Your task to perform on an android device: make emails show in primary in the gmail app Image 0: 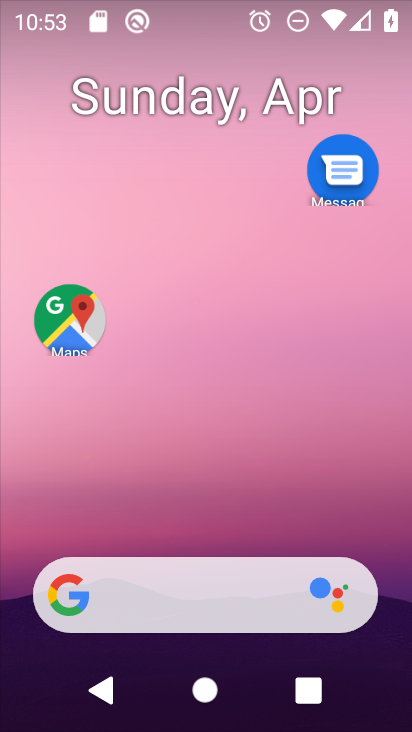
Step 0: drag from (173, 210) to (162, 66)
Your task to perform on an android device: make emails show in primary in the gmail app Image 1: 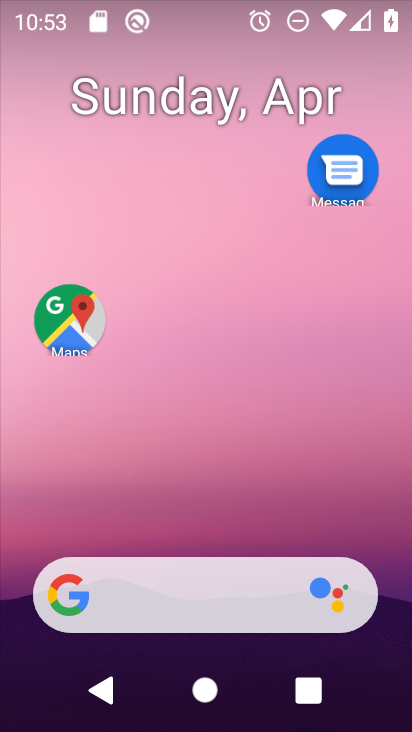
Step 1: drag from (194, 444) to (247, 126)
Your task to perform on an android device: make emails show in primary in the gmail app Image 2: 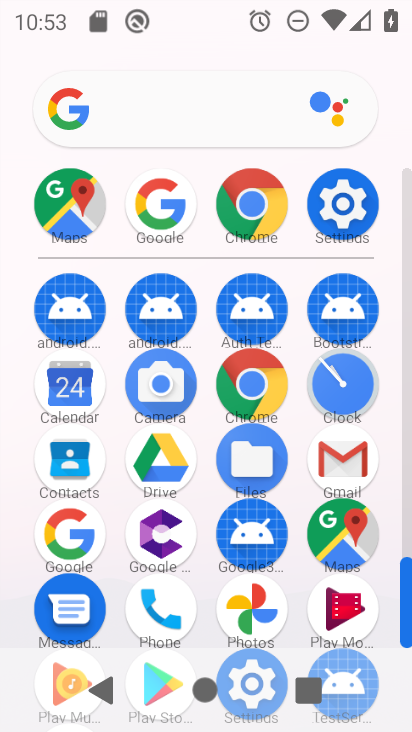
Step 2: click (346, 455)
Your task to perform on an android device: make emails show in primary in the gmail app Image 3: 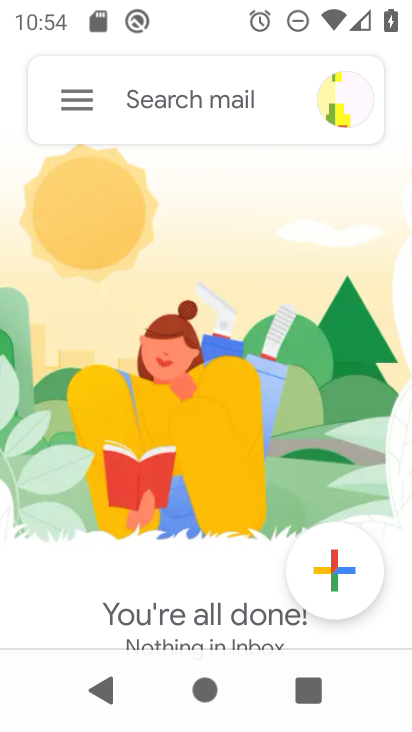
Step 3: drag from (228, 555) to (200, 167)
Your task to perform on an android device: make emails show in primary in the gmail app Image 4: 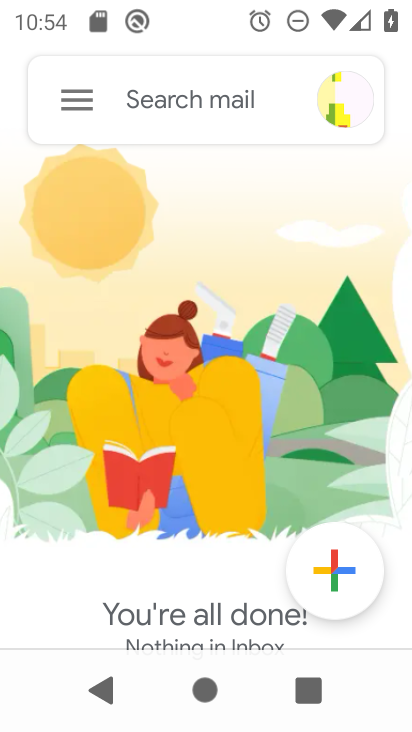
Step 4: click (73, 101)
Your task to perform on an android device: make emails show in primary in the gmail app Image 5: 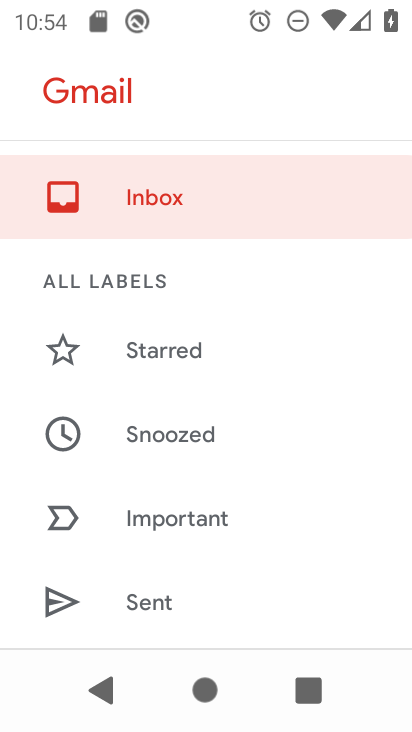
Step 5: drag from (175, 420) to (191, 132)
Your task to perform on an android device: make emails show in primary in the gmail app Image 6: 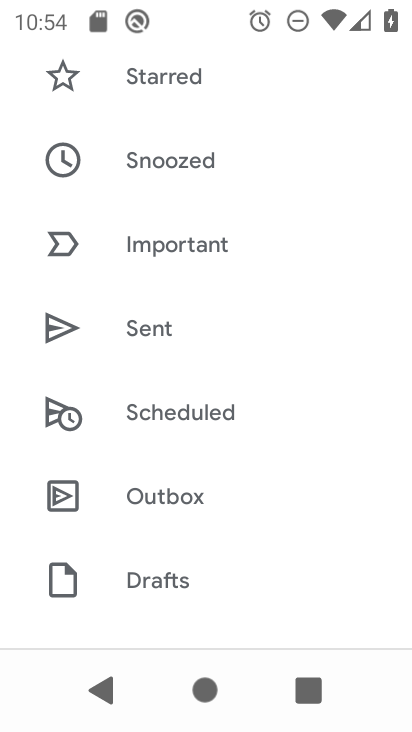
Step 6: drag from (226, 96) to (254, 617)
Your task to perform on an android device: make emails show in primary in the gmail app Image 7: 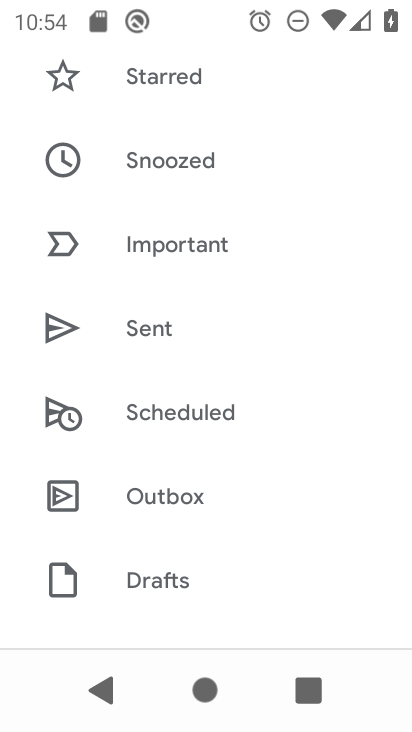
Step 7: drag from (168, 243) to (187, 684)
Your task to perform on an android device: make emails show in primary in the gmail app Image 8: 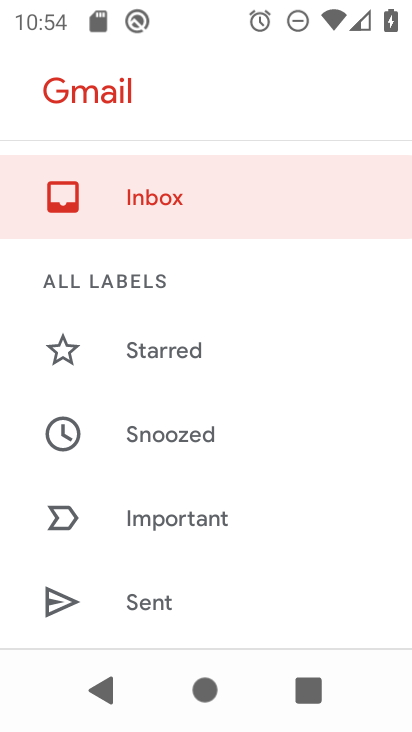
Step 8: click (113, 194)
Your task to perform on an android device: make emails show in primary in the gmail app Image 9: 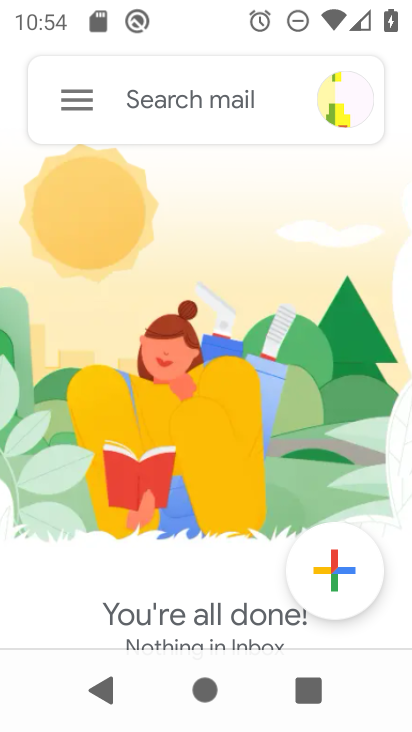
Step 9: task complete